Your task to perform on an android device: turn on translation in the chrome app Image 0: 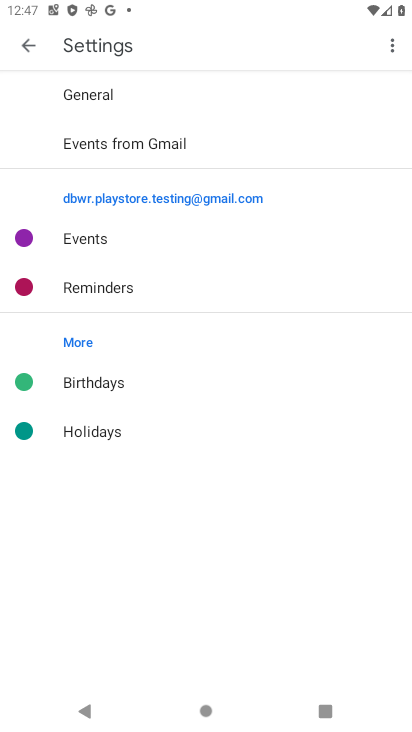
Step 0: press home button
Your task to perform on an android device: turn on translation in the chrome app Image 1: 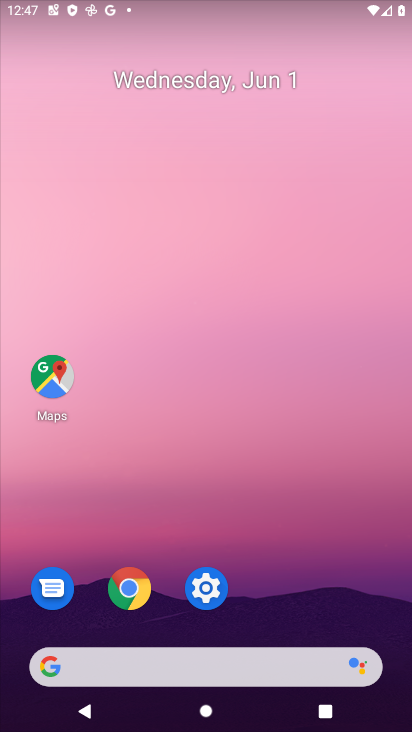
Step 1: click (140, 593)
Your task to perform on an android device: turn on translation in the chrome app Image 2: 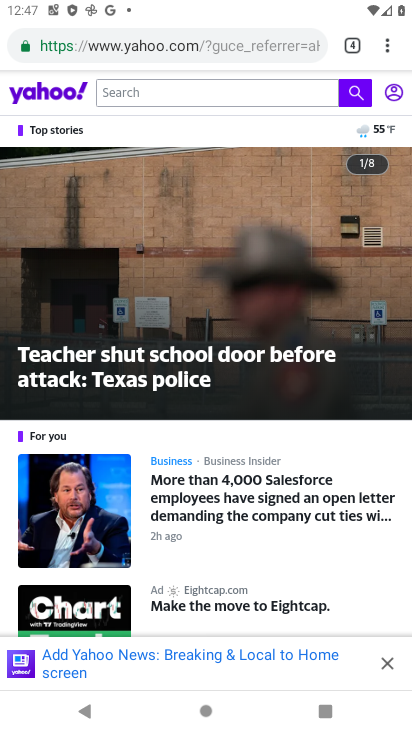
Step 2: click (386, 46)
Your task to perform on an android device: turn on translation in the chrome app Image 3: 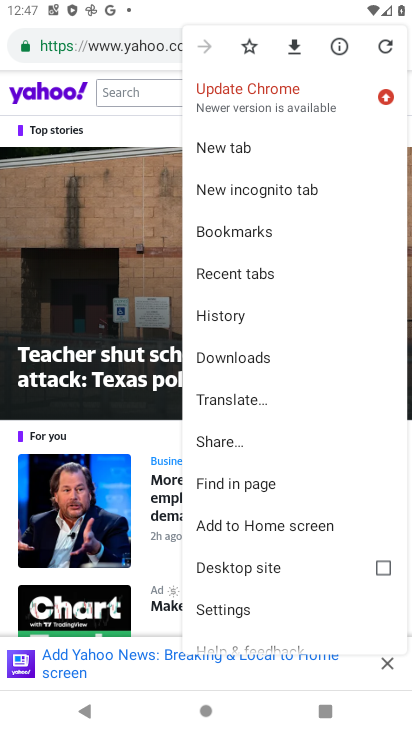
Step 3: click (222, 612)
Your task to perform on an android device: turn on translation in the chrome app Image 4: 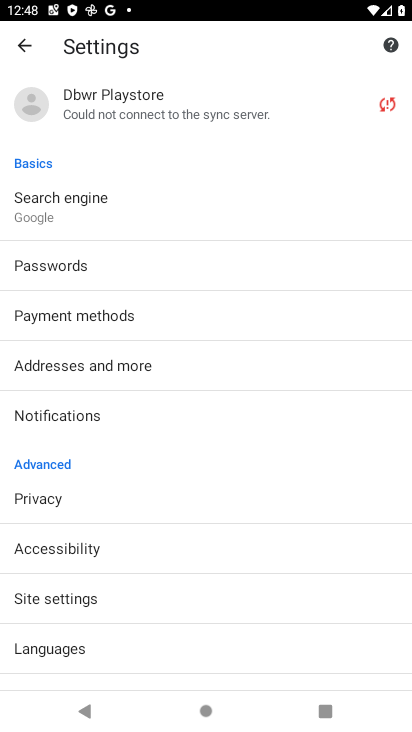
Step 4: click (57, 650)
Your task to perform on an android device: turn on translation in the chrome app Image 5: 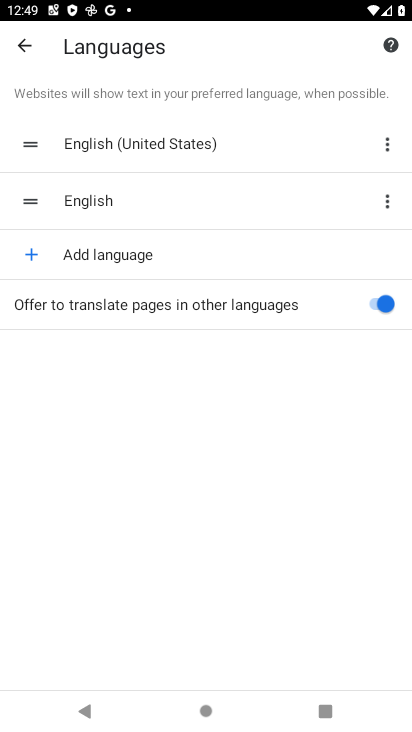
Step 5: task complete